Your task to perform on an android device: Clear the shopping cart on target.com. Search for dell alienware on target.com, select the first entry, add it to the cart, then select checkout. Image 0: 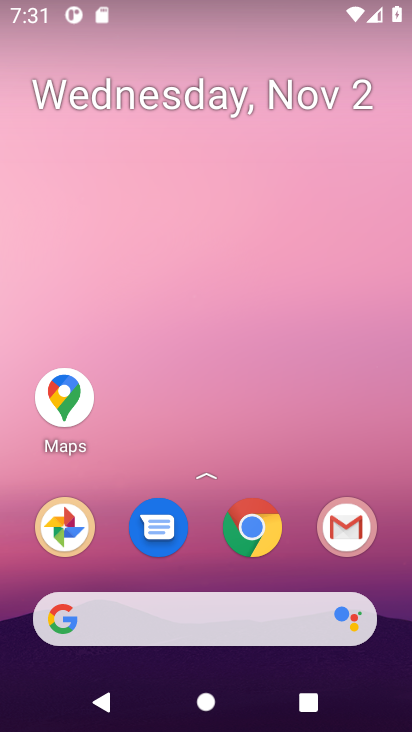
Step 0: click (254, 540)
Your task to perform on an android device: Clear the shopping cart on target.com. Search for dell alienware on target.com, select the first entry, add it to the cart, then select checkout. Image 1: 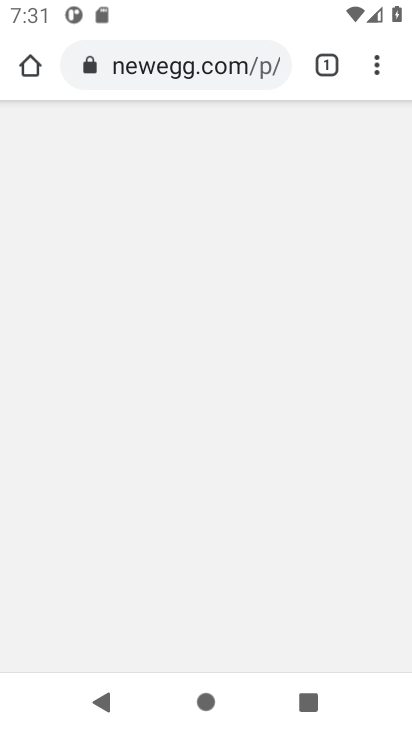
Step 1: click (175, 68)
Your task to perform on an android device: Clear the shopping cart on target.com. Search for dell alienware on target.com, select the first entry, add it to the cart, then select checkout. Image 2: 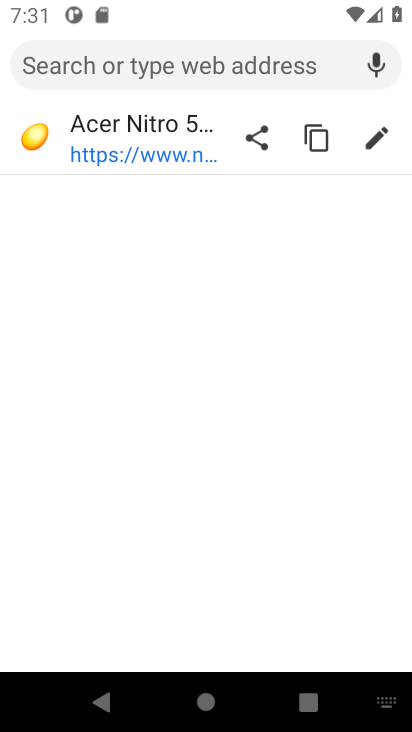
Step 2: type "target.com"
Your task to perform on an android device: Clear the shopping cart on target.com. Search for dell alienware on target.com, select the first entry, add it to the cart, then select checkout. Image 3: 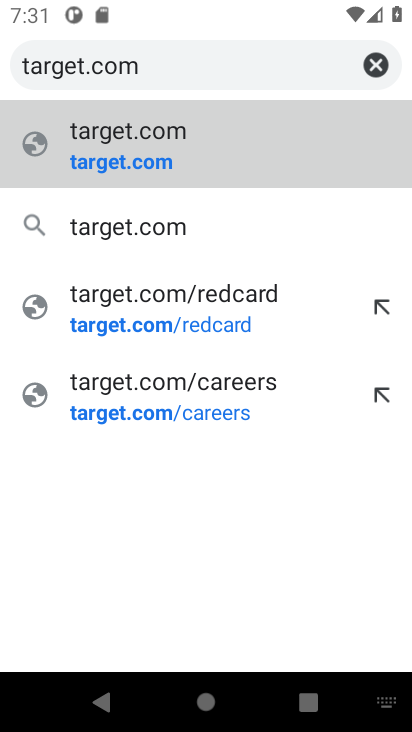
Step 3: click (322, 148)
Your task to perform on an android device: Clear the shopping cart on target.com. Search for dell alienware on target.com, select the first entry, add it to the cart, then select checkout. Image 4: 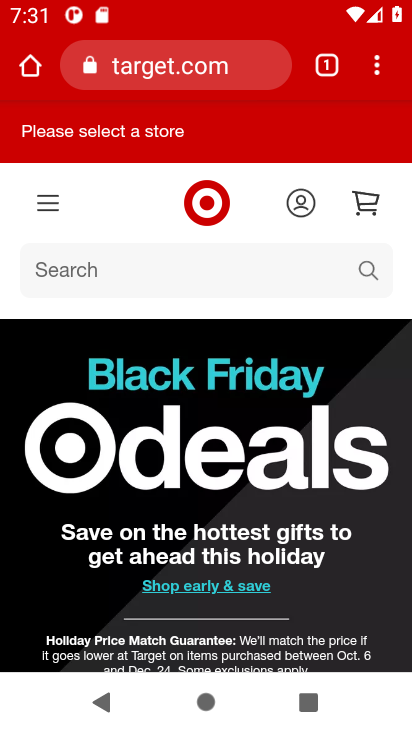
Step 4: click (159, 276)
Your task to perform on an android device: Clear the shopping cart on target.com. Search for dell alienware on target.com, select the first entry, add it to the cart, then select checkout. Image 5: 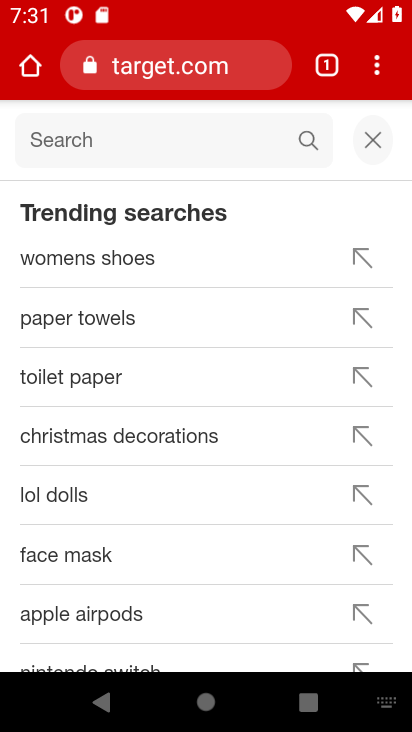
Step 5: click (371, 143)
Your task to perform on an android device: Clear the shopping cart on target.com. Search for dell alienware on target.com, select the first entry, add it to the cart, then select checkout. Image 6: 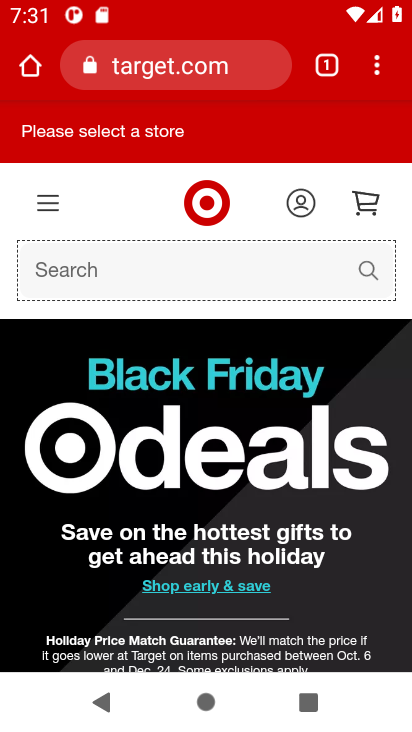
Step 6: click (367, 201)
Your task to perform on an android device: Clear the shopping cart on target.com. Search for dell alienware on target.com, select the first entry, add it to the cart, then select checkout. Image 7: 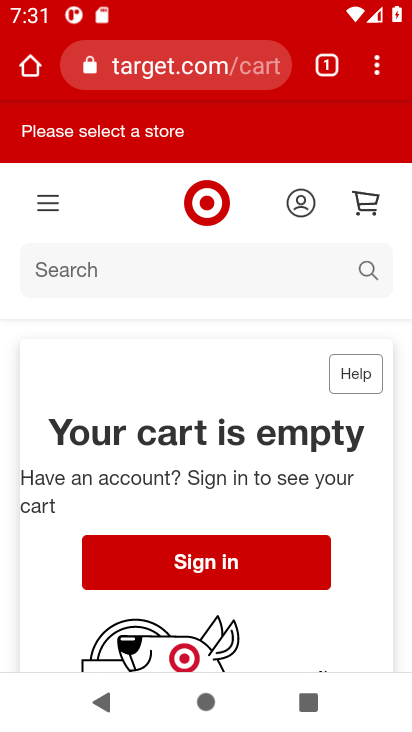
Step 7: click (235, 278)
Your task to perform on an android device: Clear the shopping cart on target.com. Search for dell alienware on target.com, select the first entry, add it to the cart, then select checkout. Image 8: 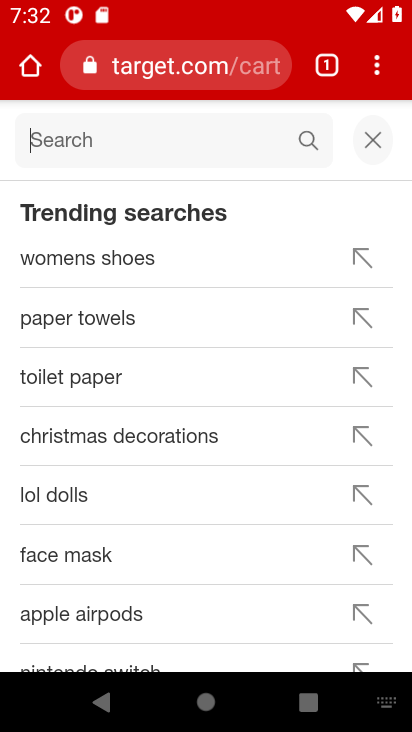
Step 8: type "dell alienware"
Your task to perform on an android device: Clear the shopping cart on target.com. Search for dell alienware on target.com, select the first entry, add it to the cart, then select checkout. Image 9: 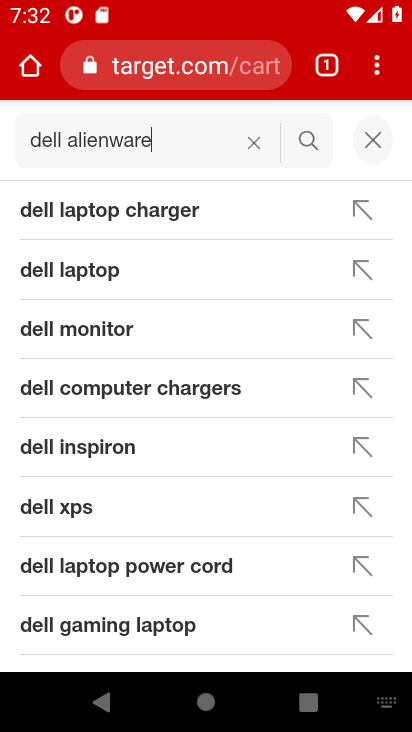
Step 9: press enter
Your task to perform on an android device: Clear the shopping cart on target.com. Search for dell alienware on target.com, select the first entry, add it to the cart, then select checkout. Image 10: 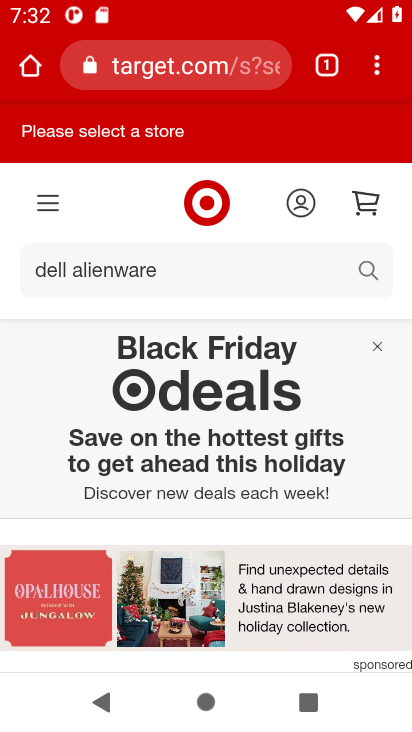
Step 10: click (376, 350)
Your task to perform on an android device: Clear the shopping cart on target.com. Search for dell alienware on target.com, select the first entry, add it to the cart, then select checkout. Image 11: 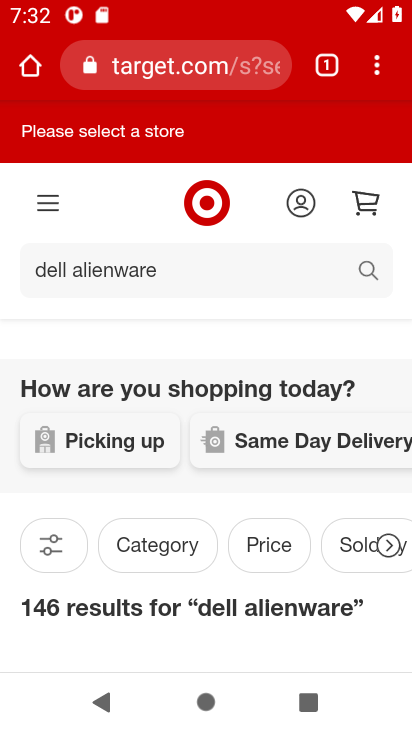
Step 11: drag from (338, 347) to (307, 98)
Your task to perform on an android device: Clear the shopping cart on target.com. Search for dell alienware on target.com, select the first entry, add it to the cart, then select checkout. Image 12: 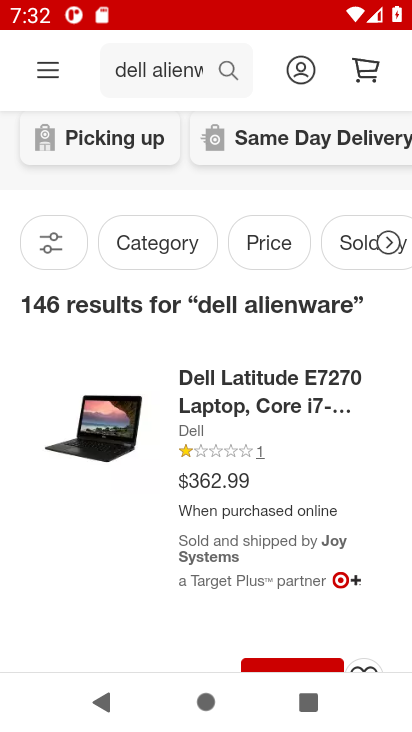
Step 12: click (127, 436)
Your task to perform on an android device: Clear the shopping cart on target.com. Search for dell alienware on target.com, select the first entry, add it to the cart, then select checkout. Image 13: 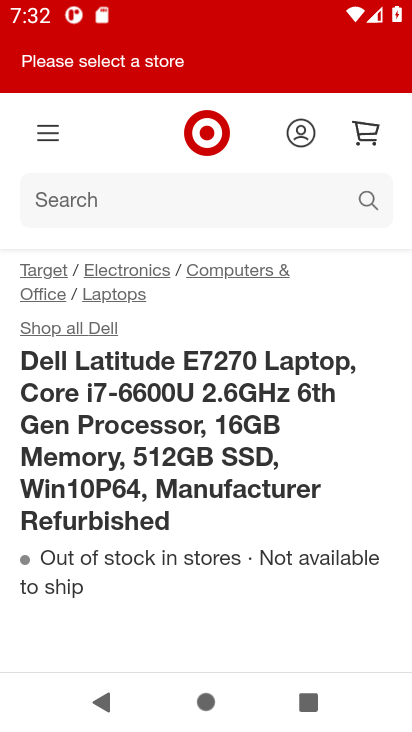
Step 13: drag from (293, 581) to (279, 133)
Your task to perform on an android device: Clear the shopping cart on target.com. Search for dell alienware on target.com, select the first entry, add it to the cart, then select checkout. Image 14: 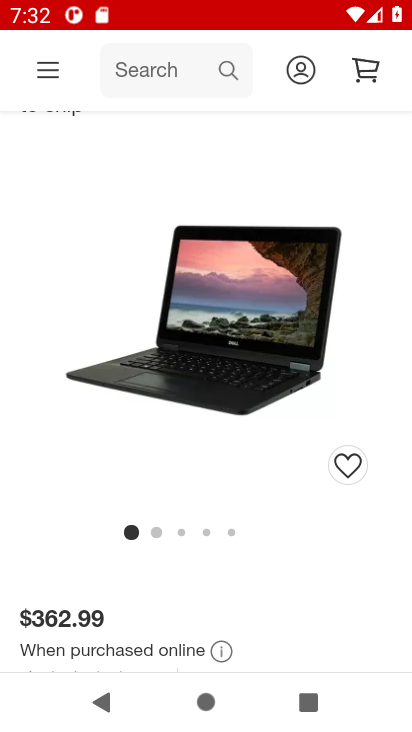
Step 14: drag from (260, 603) to (226, 277)
Your task to perform on an android device: Clear the shopping cart on target.com. Search for dell alienware on target.com, select the first entry, add it to the cart, then select checkout. Image 15: 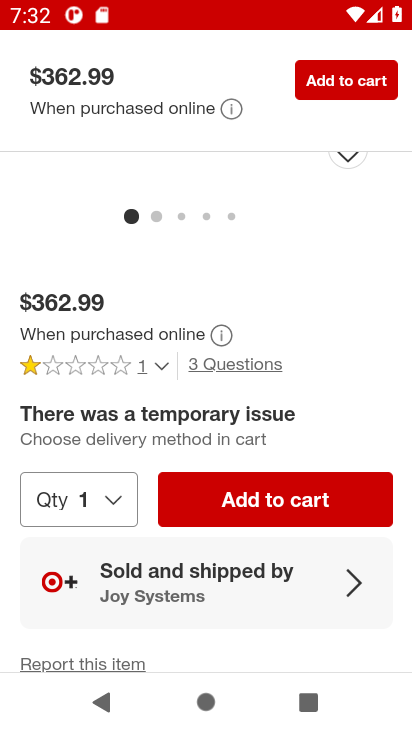
Step 15: click (271, 499)
Your task to perform on an android device: Clear the shopping cart on target.com. Search for dell alienware on target.com, select the first entry, add it to the cart, then select checkout. Image 16: 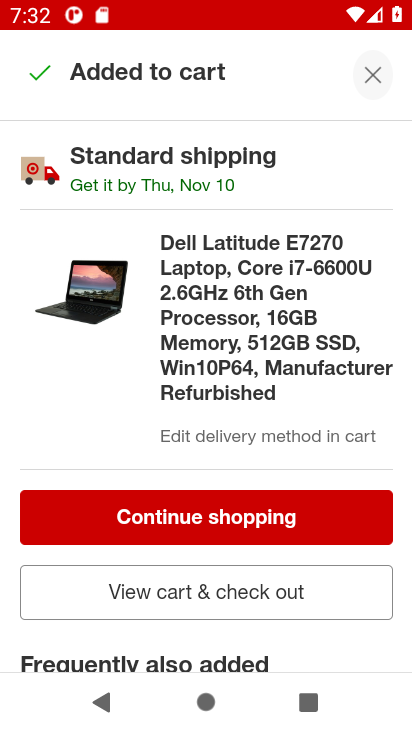
Step 16: click (187, 598)
Your task to perform on an android device: Clear the shopping cart on target.com. Search for dell alienware on target.com, select the first entry, add it to the cart, then select checkout. Image 17: 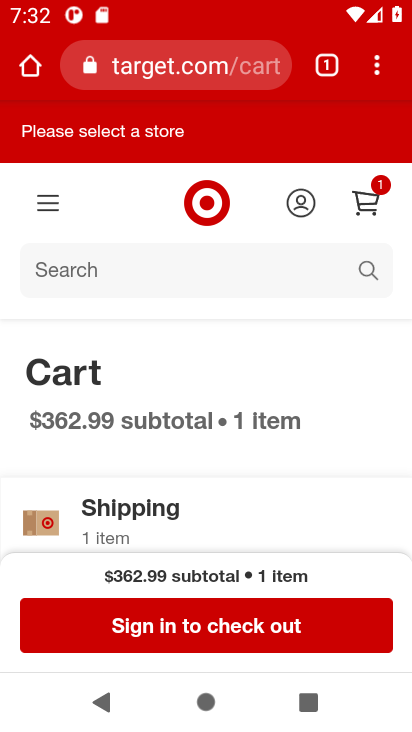
Step 17: click (274, 636)
Your task to perform on an android device: Clear the shopping cart on target.com. Search for dell alienware on target.com, select the first entry, add it to the cart, then select checkout. Image 18: 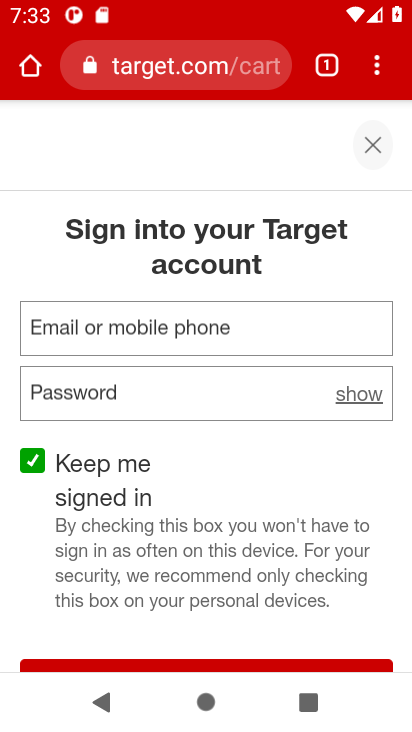
Step 18: task complete